Your task to perform on an android device: toggle translation in the chrome app Image 0: 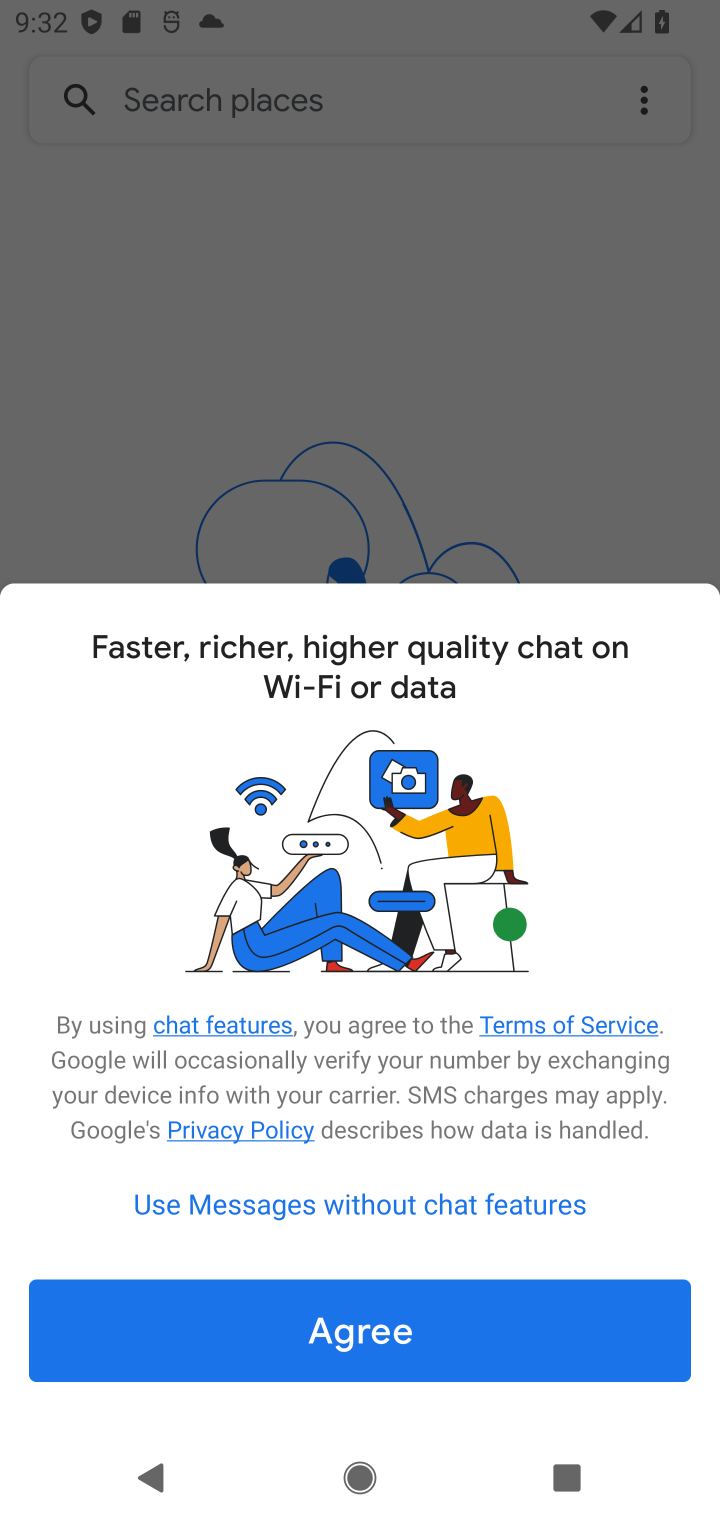
Step 0: click (640, 97)
Your task to perform on an android device: toggle translation in the chrome app Image 1: 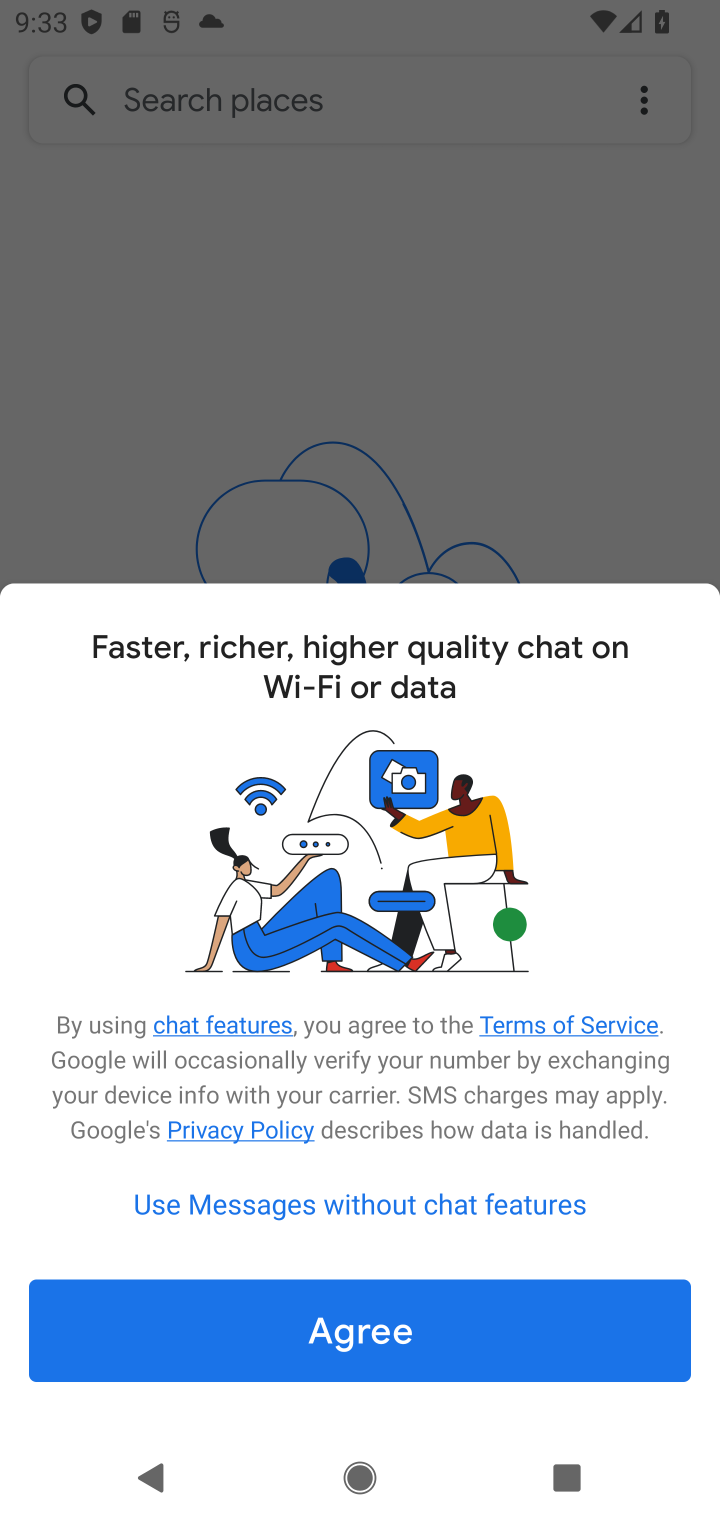
Step 1: click (364, 1347)
Your task to perform on an android device: toggle translation in the chrome app Image 2: 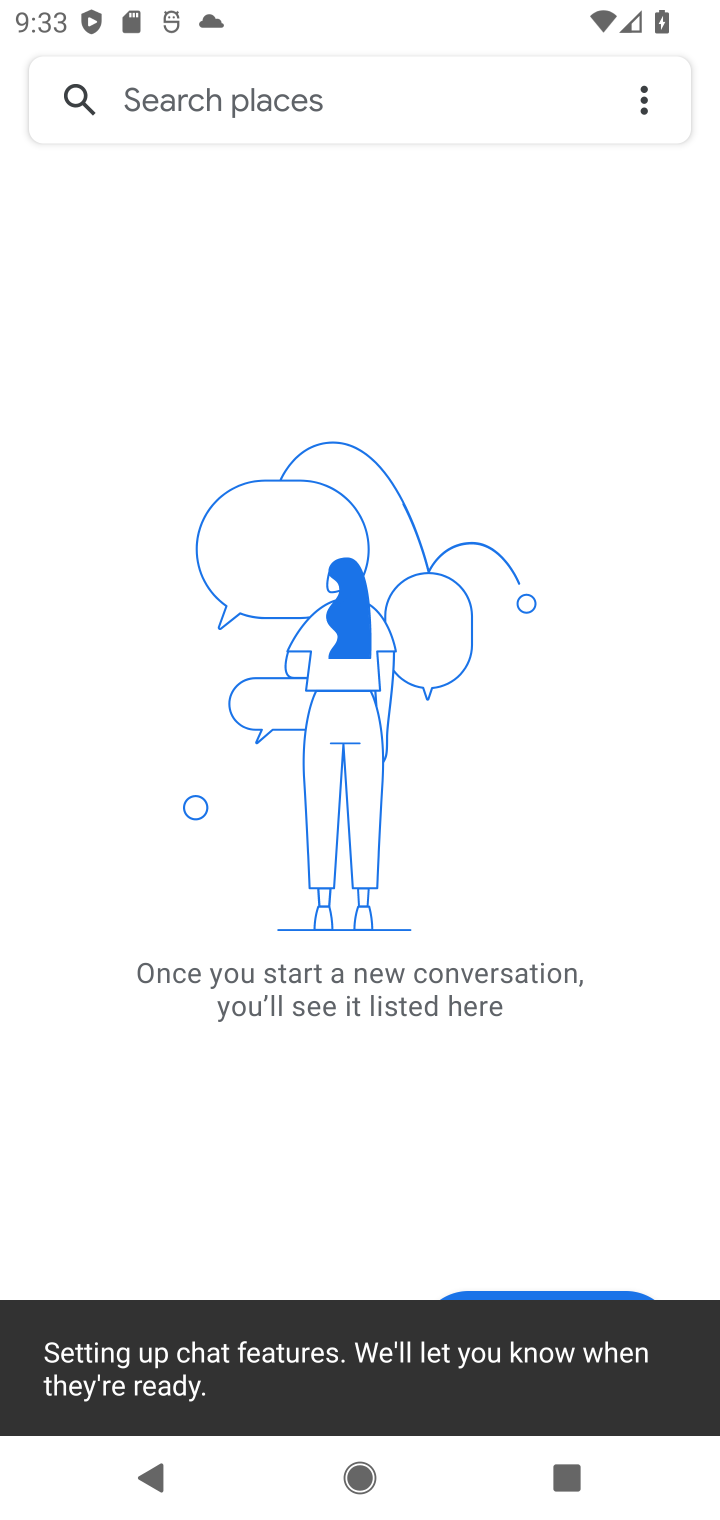
Step 2: click (653, 95)
Your task to perform on an android device: toggle translation in the chrome app Image 3: 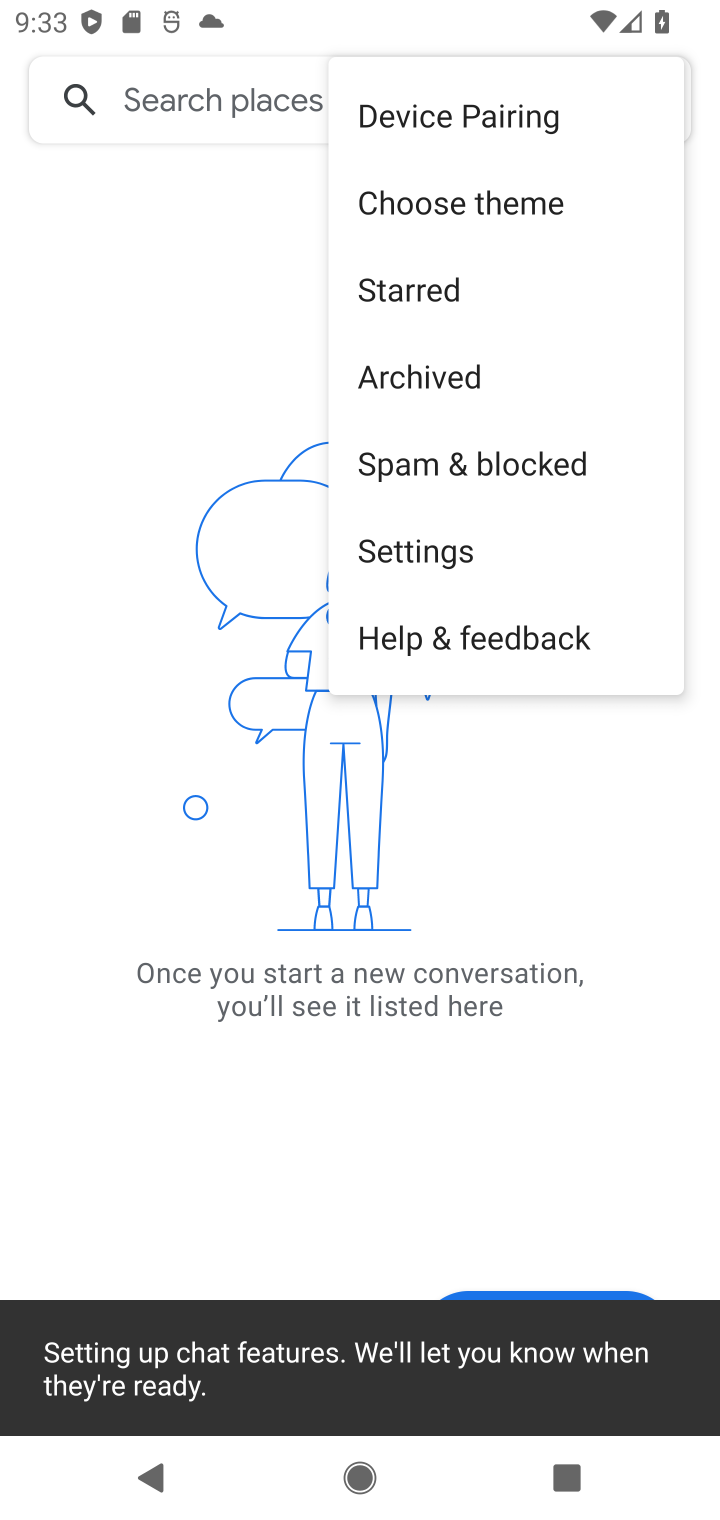
Step 3: click (492, 547)
Your task to perform on an android device: toggle translation in the chrome app Image 4: 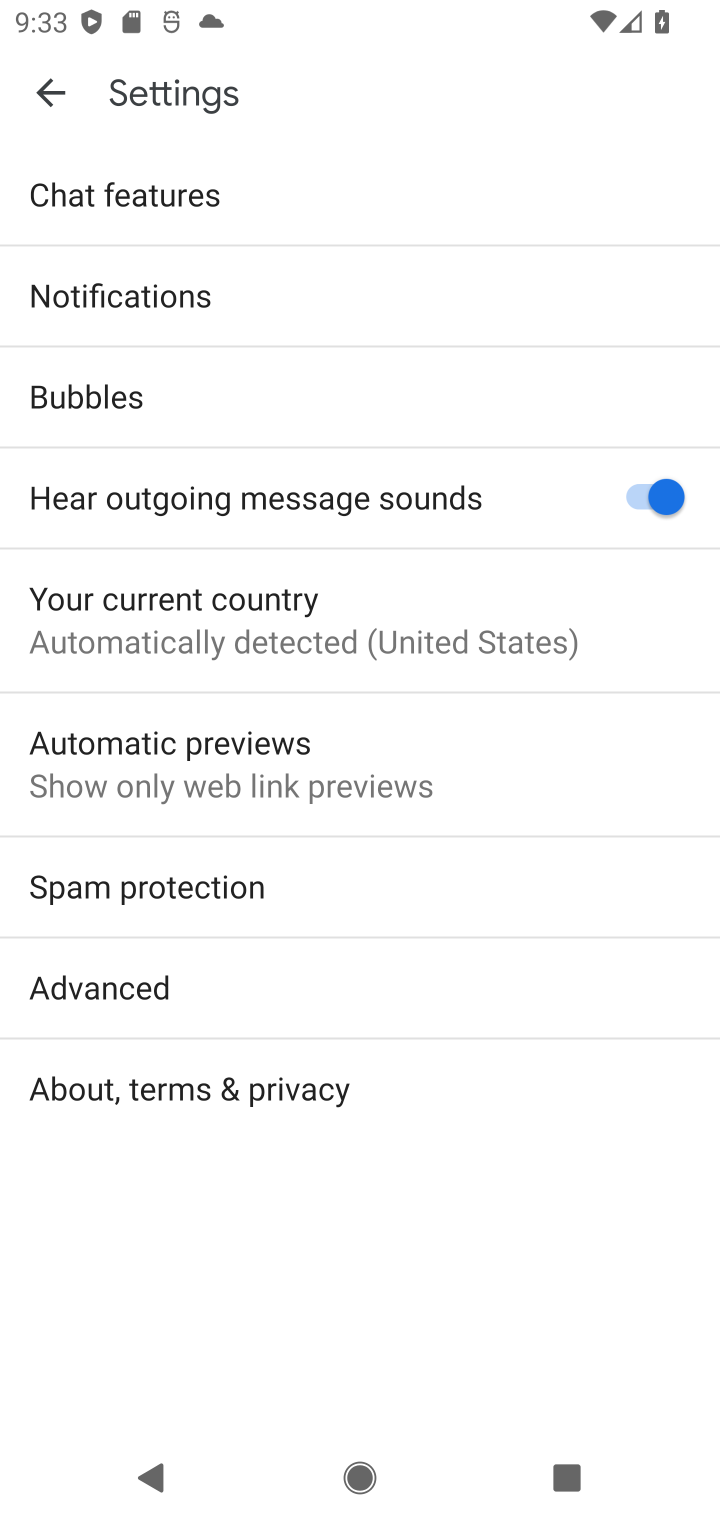
Step 4: click (73, 104)
Your task to perform on an android device: toggle translation in the chrome app Image 5: 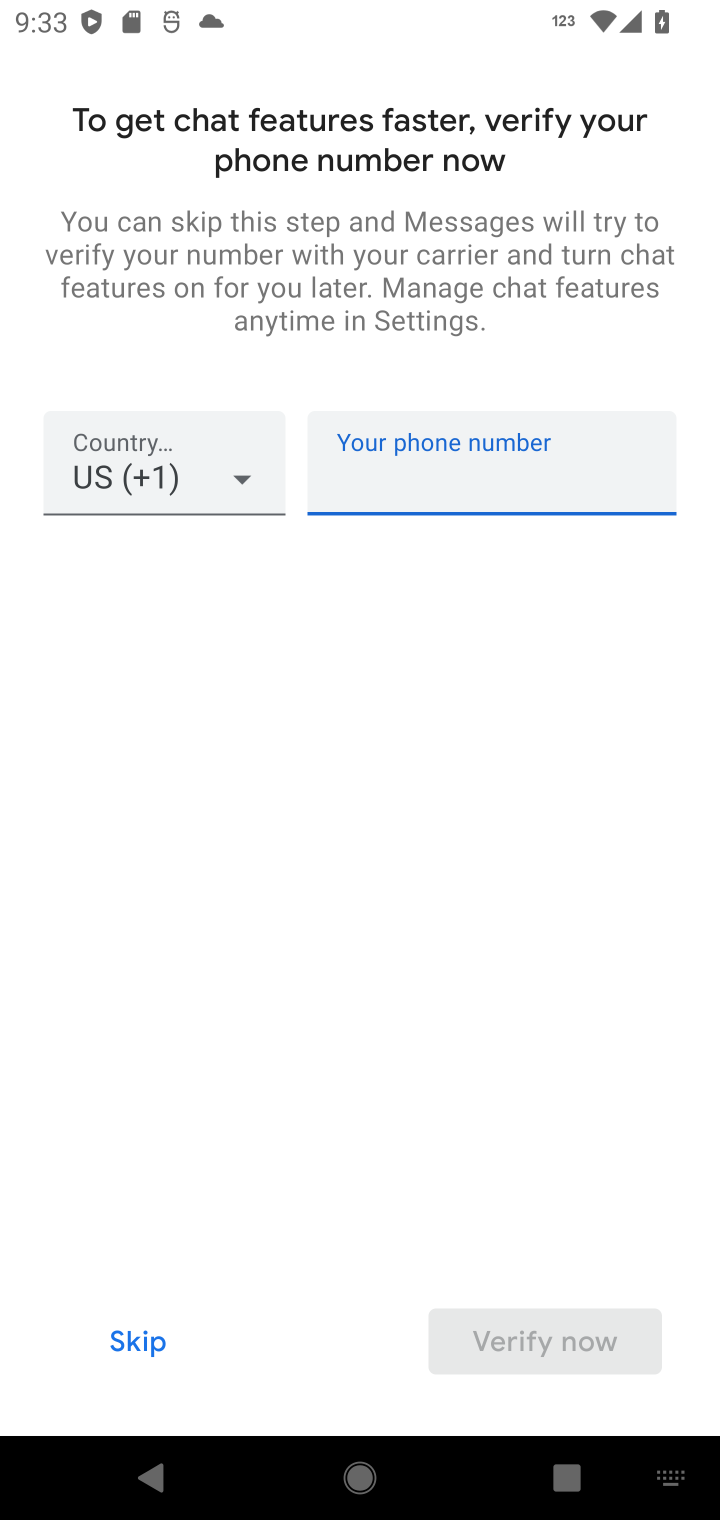
Step 5: click (172, 1342)
Your task to perform on an android device: toggle translation in the chrome app Image 6: 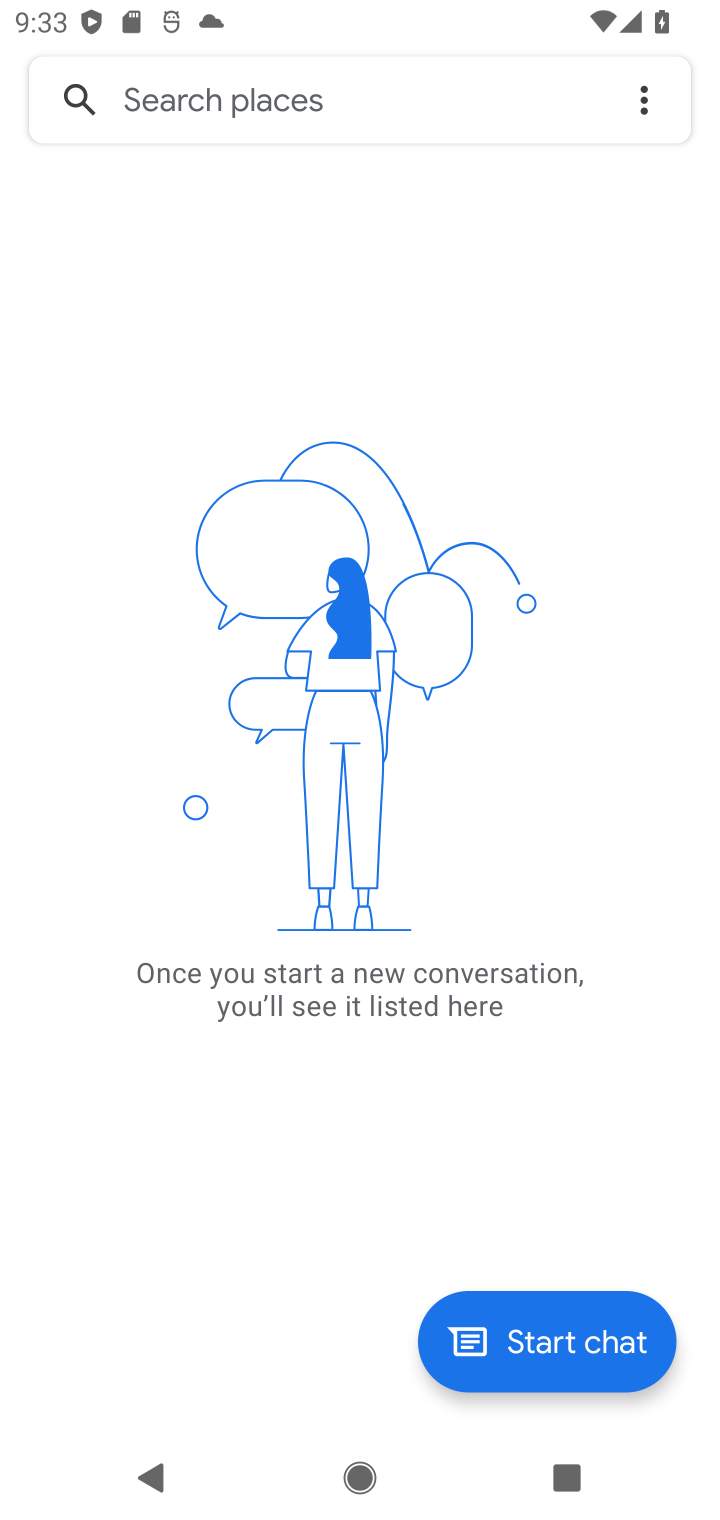
Step 6: press home button
Your task to perform on an android device: toggle translation in the chrome app Image 7: 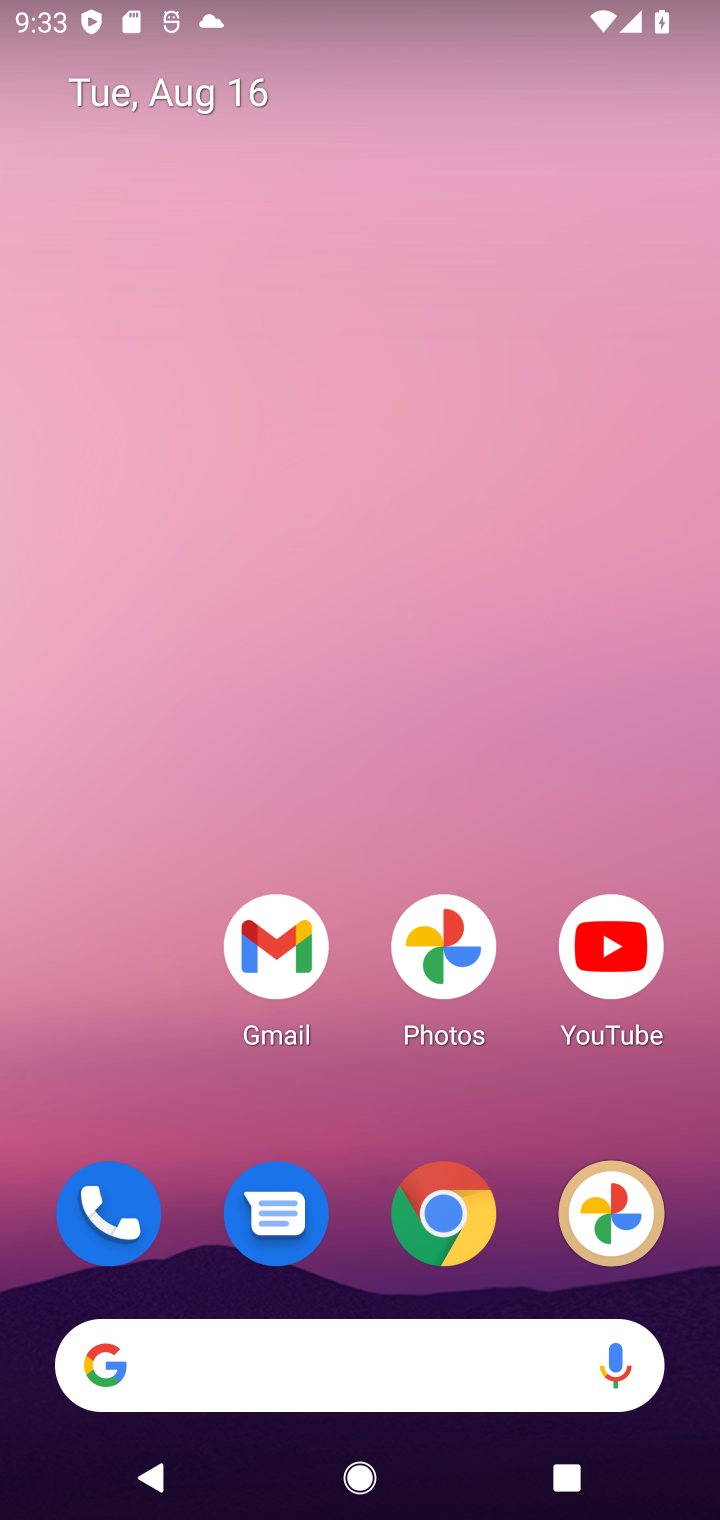
Step 7: drag from (347, 885) to (383, 318)
Your task to perform on an android device: toggle translation in the chrome app Image 8: 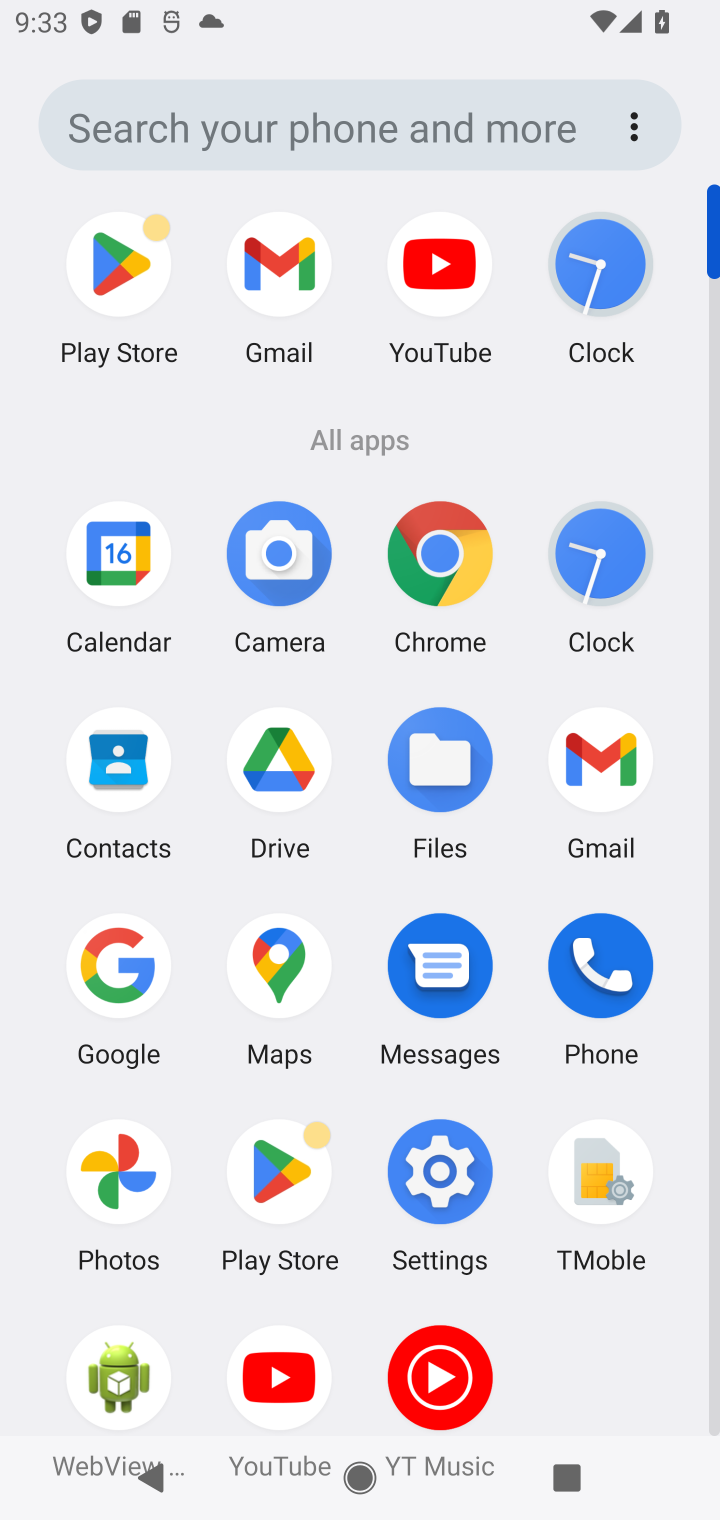
Step 8: click (418, 541)
Your task to perform on an android device: toggle translation in the chrome app Image 9: 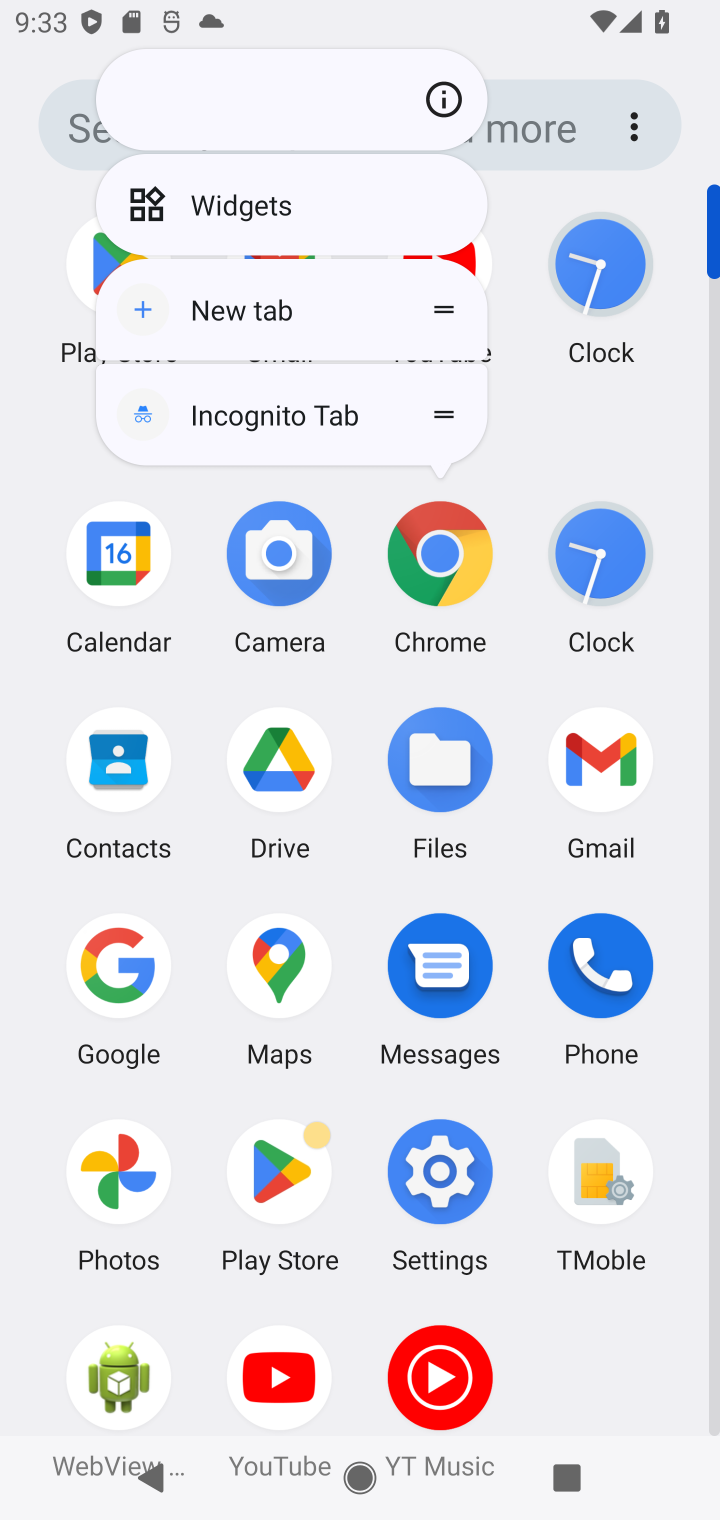
Step 9: click (445, 555)
Your task to perform on an android device: toggle translation in the chrome app Image 10: 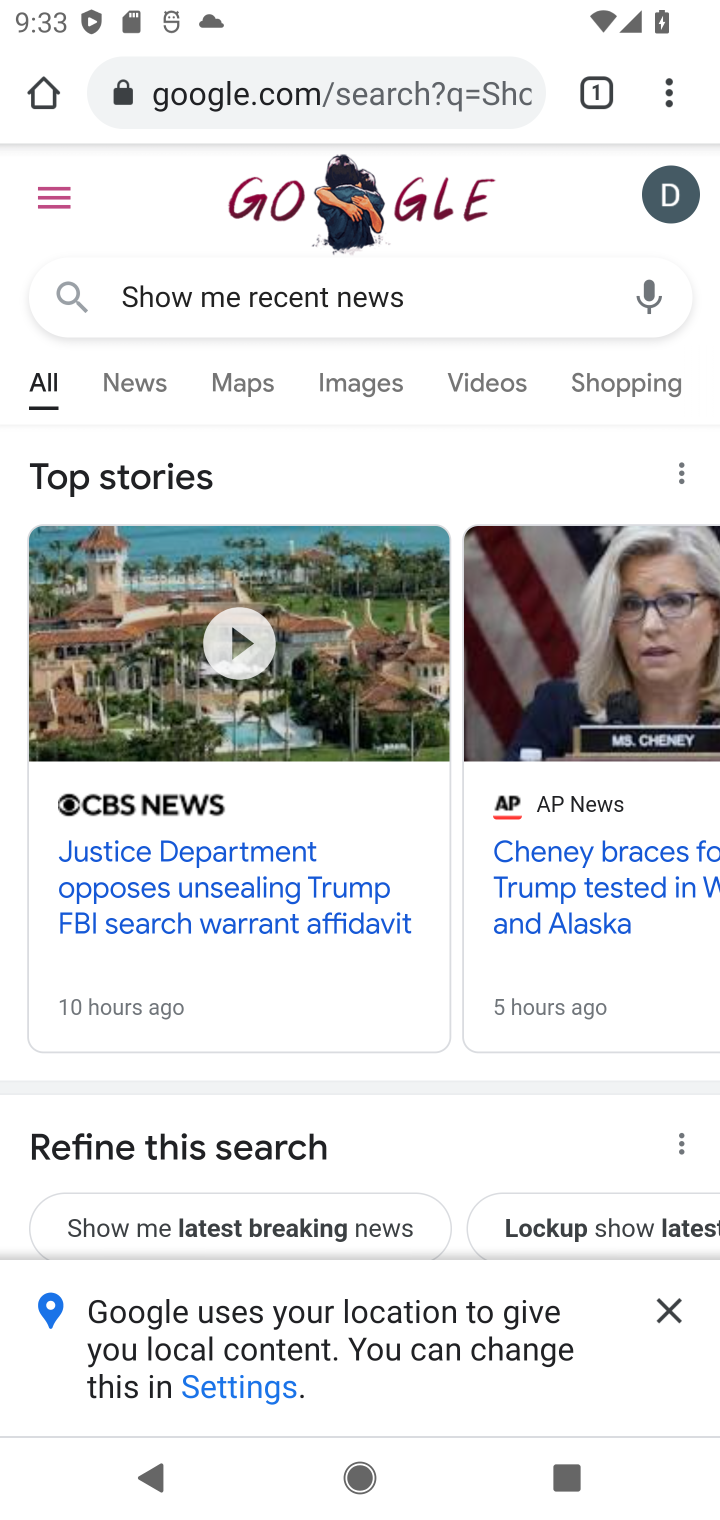
Step 10: click (670, 87)
Your task to perform on an android device: toggle translation in the chrome app Image 11: 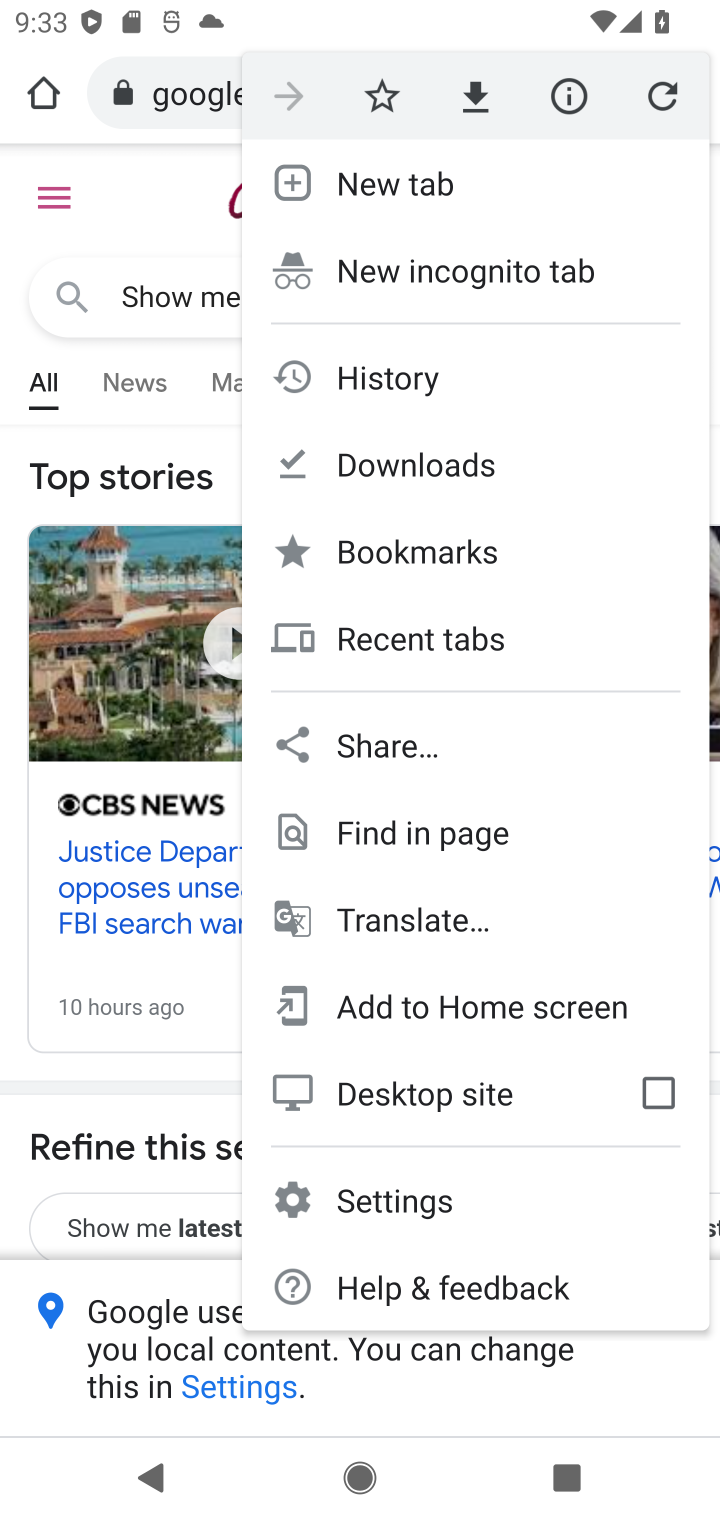
Step 11: click (399, 1200)
Your task to perform on an android device: toggle translation in the chrome app Image 12: 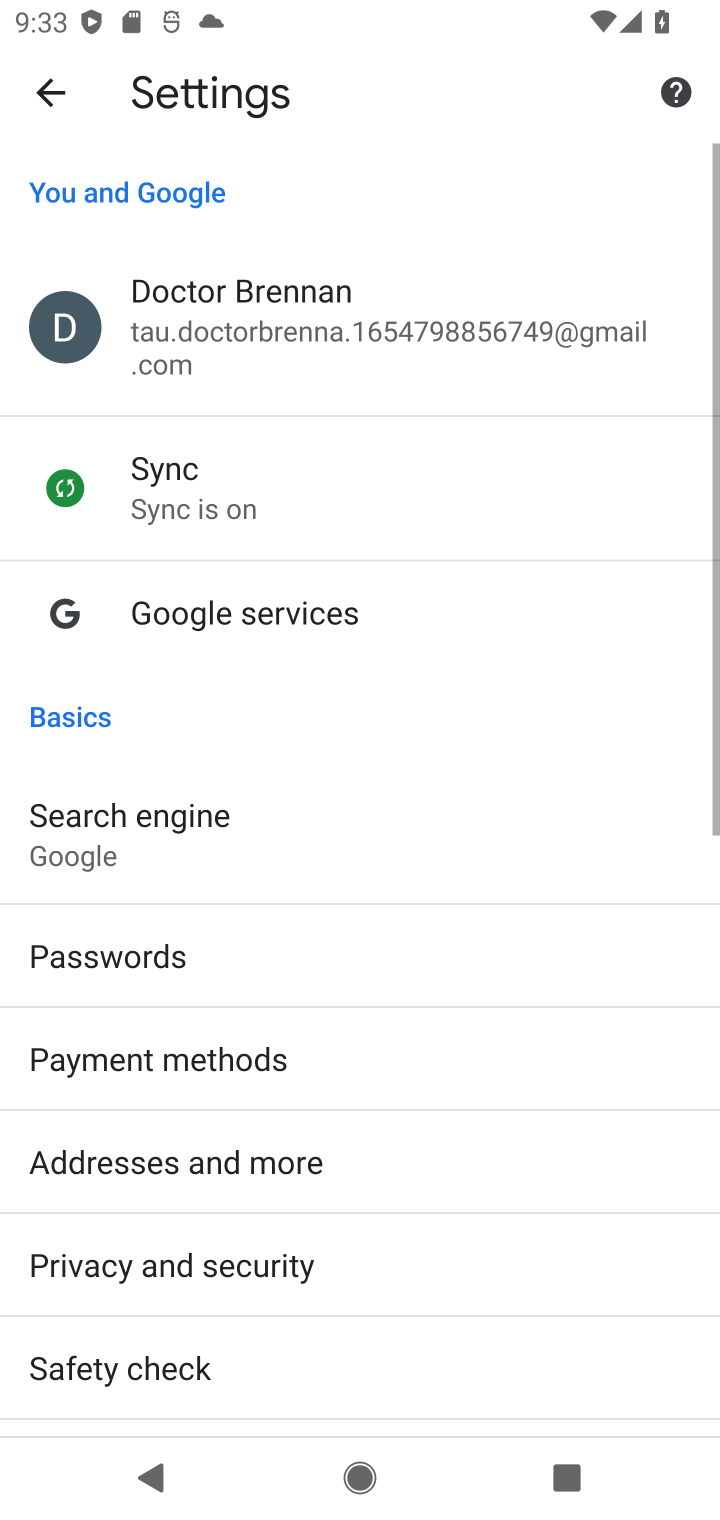
Step 12: drag from (370, 1256) to (455, 396)
Your task to perform on an android device: toggle translation in the chrome app Image 13: 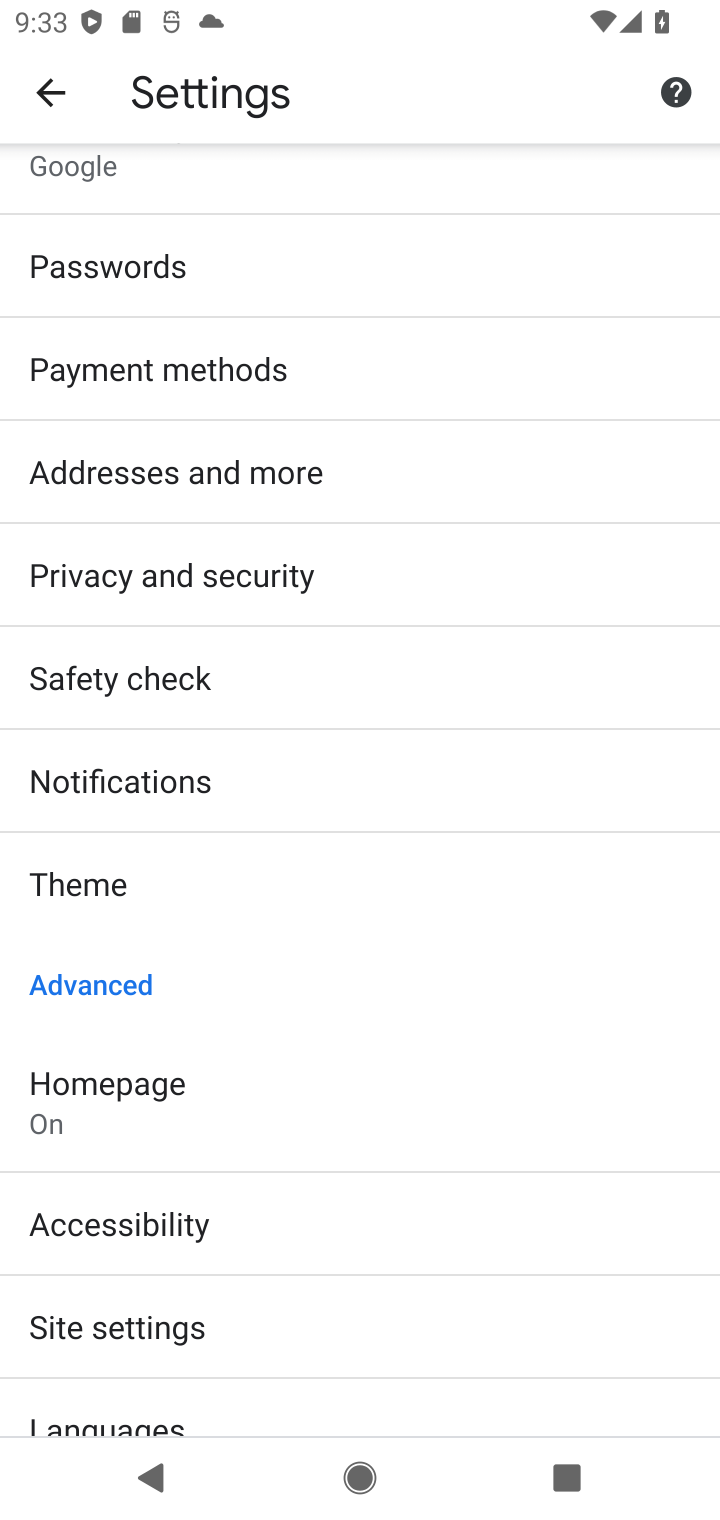
Step 13: drag from (195, 1312) to (265, 795)
Your task to perform on an android device: toggle translation in the chrome app Image 14: 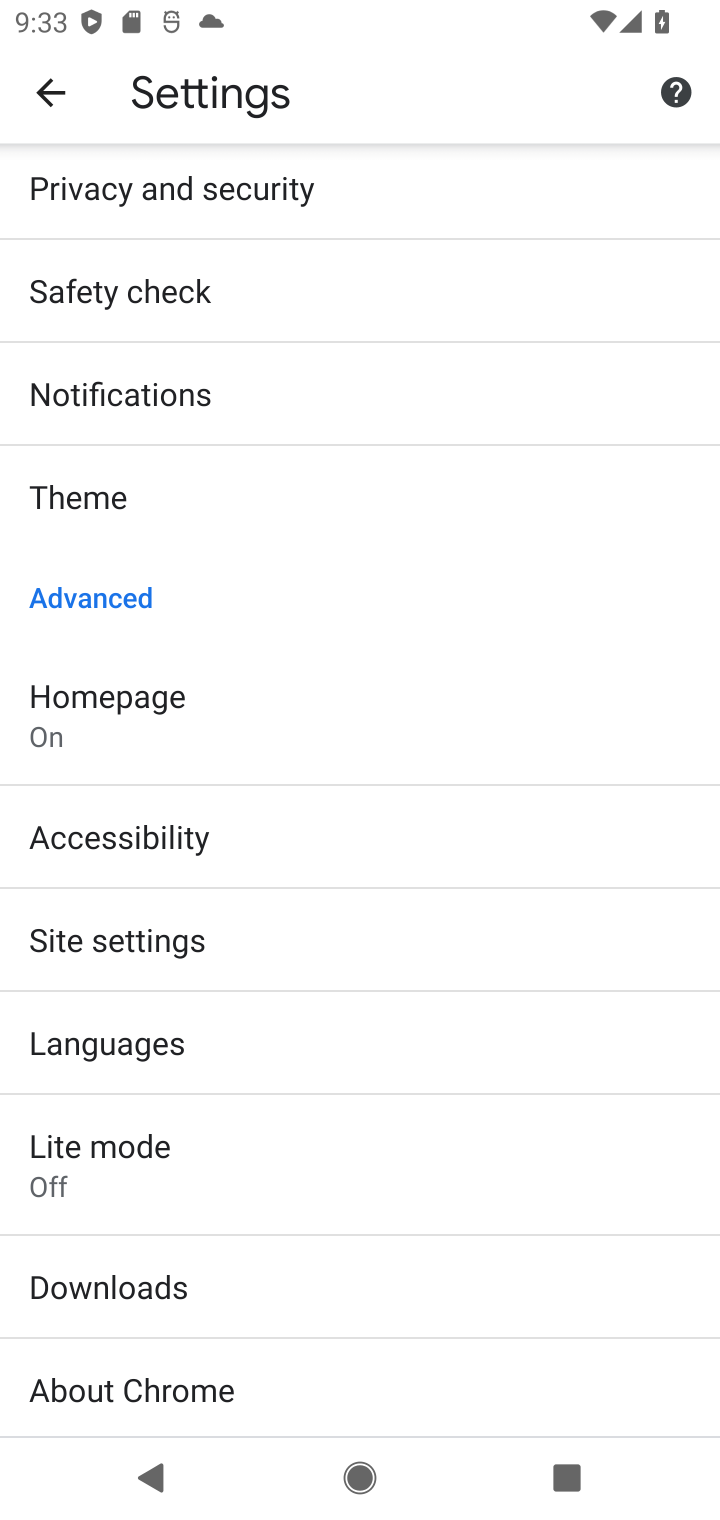
Step 14: click (169, 1028)
Your task to perform on an android device: toggle translation in the chrome app Image 15: 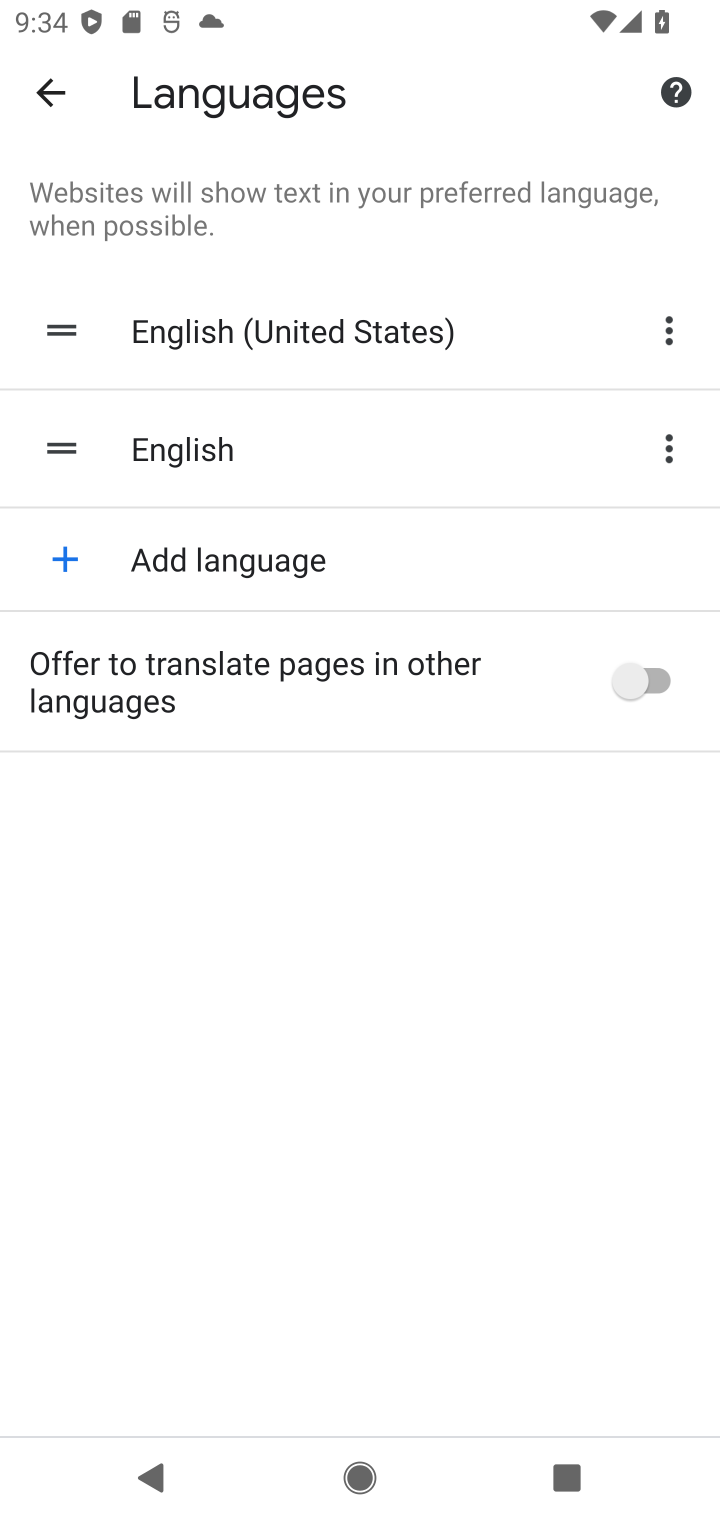
Step 15: click (641, 672)
Your task to perform on an android device: toggle translation in the chrome app Image 16: 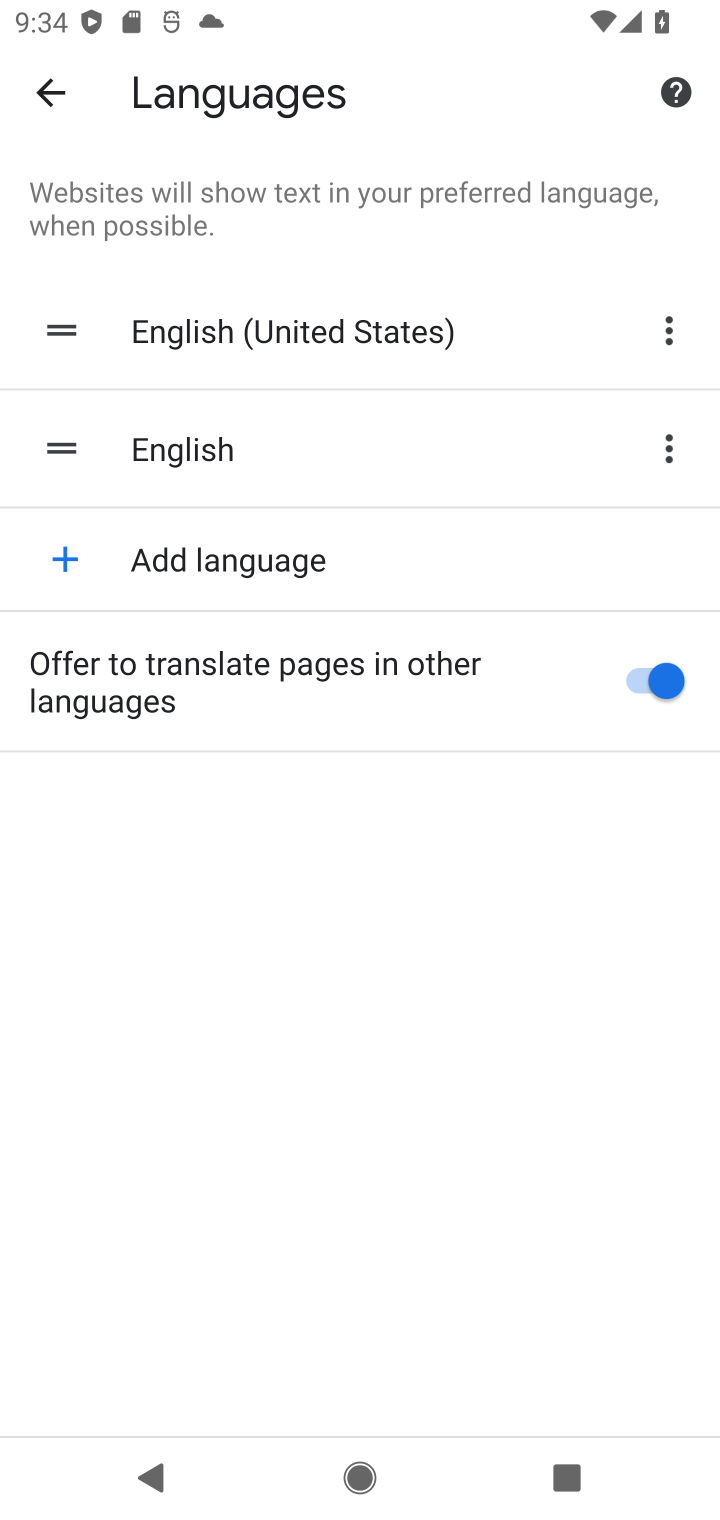
Step 16: task complete